Your task to perform on an android device: Open the map Image 0: 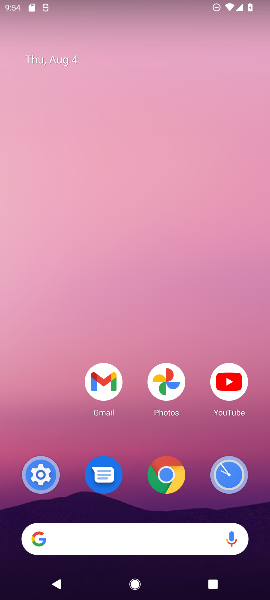
Step 0: drag from (132, 503) to (96, 192)
Your task to perform on an android device: Open the map Image 1: 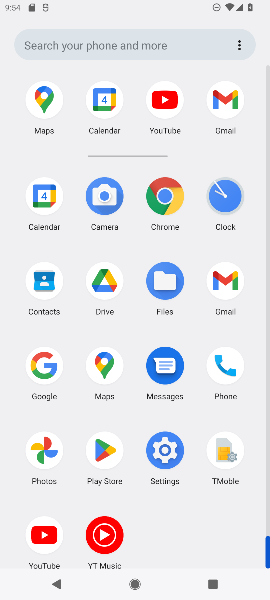
Step 1: click (104, 365)
Your task to perform on an android device: Open the map Image 2: 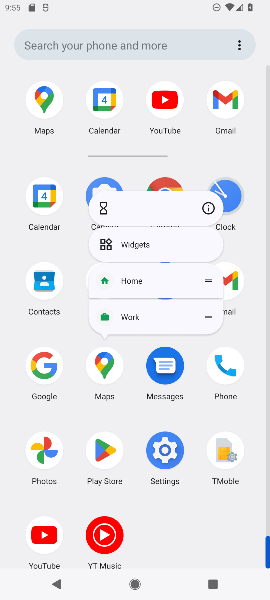
Step 2: click (212, 204)
Your task to perform on an android device: Open the map Image 3: 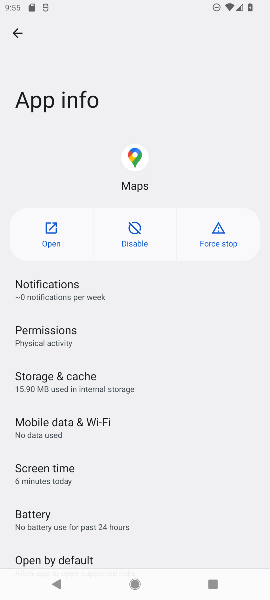
Step 3: click (52, 220)
Your task to perform on an android device: Open the map Image 4: 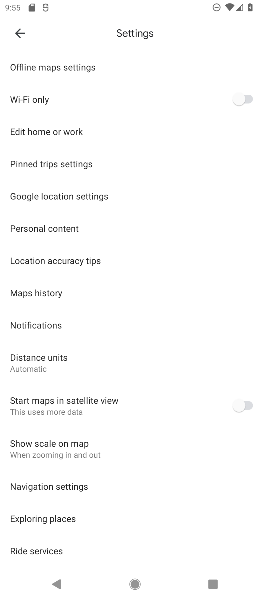
Step 4: drag from (114, 457) to (177, 204)
Your task to perform on an android device: Open the map Image 5: 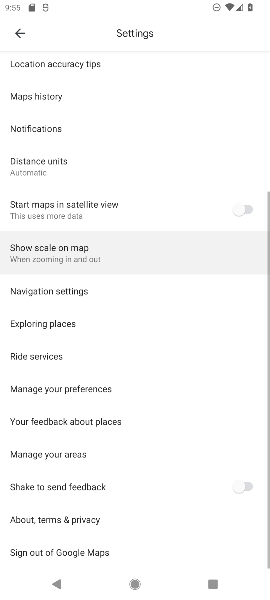
Step 5: drag from (179, 264) to (182, 592)
Your task to perform on an android device: Open the map Image 6: 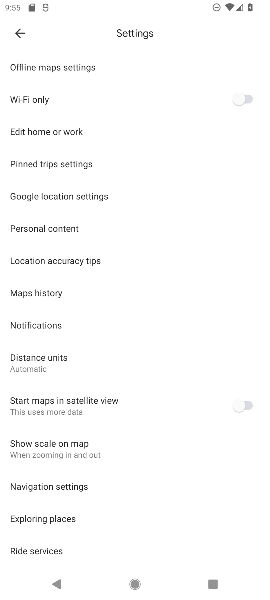
Step 6: click (15, 33)
Your task to perform on an android device: Open the map Image 7: 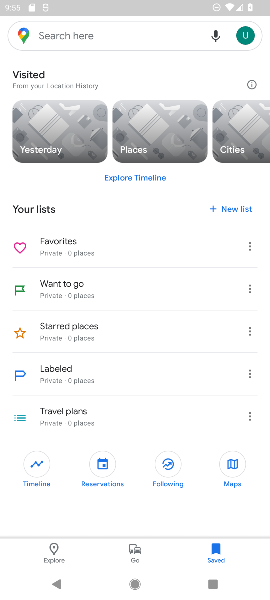
Step 7: task complete